Your task to perform on an android device: Open wifi settings Image 0: 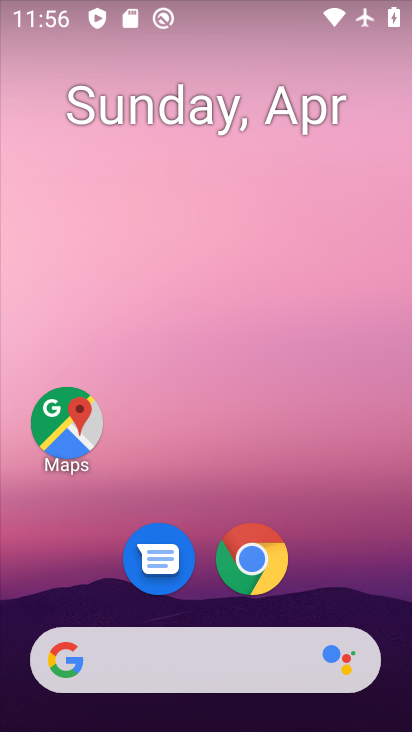
Step 0: drag from (341, 592) to (281, 99)
Your task to perform on an android device: Open wifi settings Image 1: 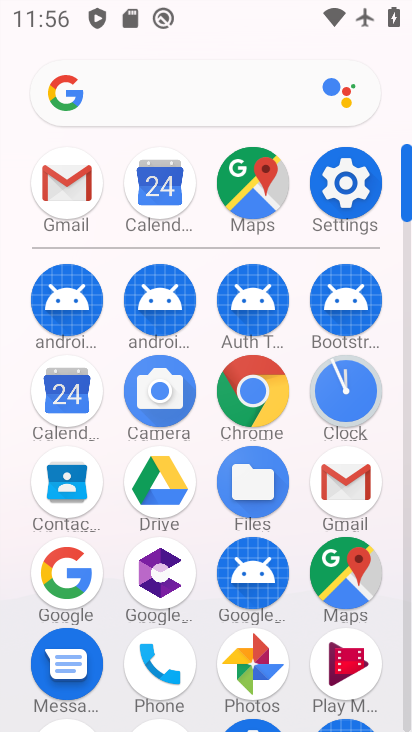
Step 1: click (349, 165)
Your task to perform on an android device: Open wifi settings Image 2: 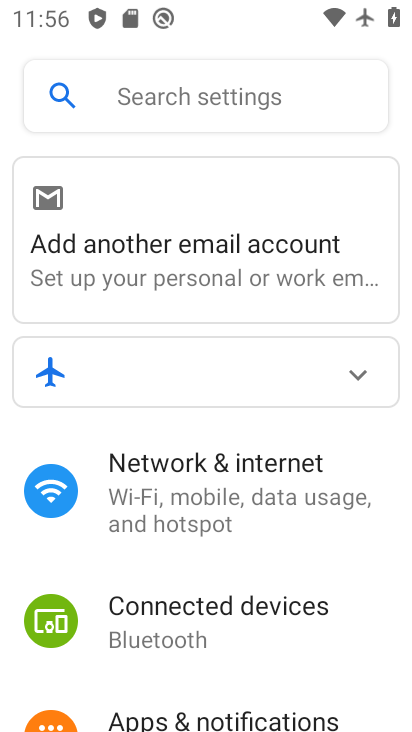
Step 2: click (157, 471)
Your task to perform on an android device: Open wifi settings Image 3: 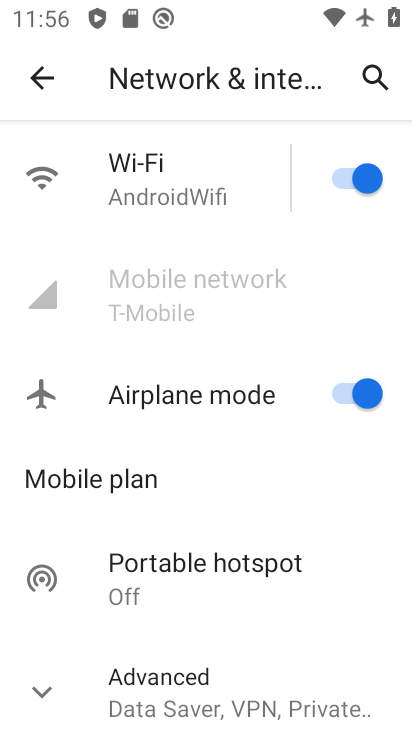
Step 3: click (34, 179)
Your task to perform on an android device: Open wifi settings Image 4: 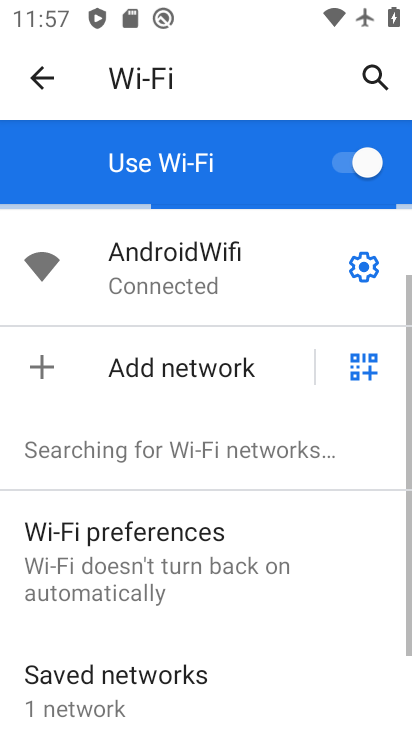
Step 4: task complete